Your task to perform on an android device: Clear all items from cart on target.com. Add usb-c to usb-b to the cart on target.com Image 0: 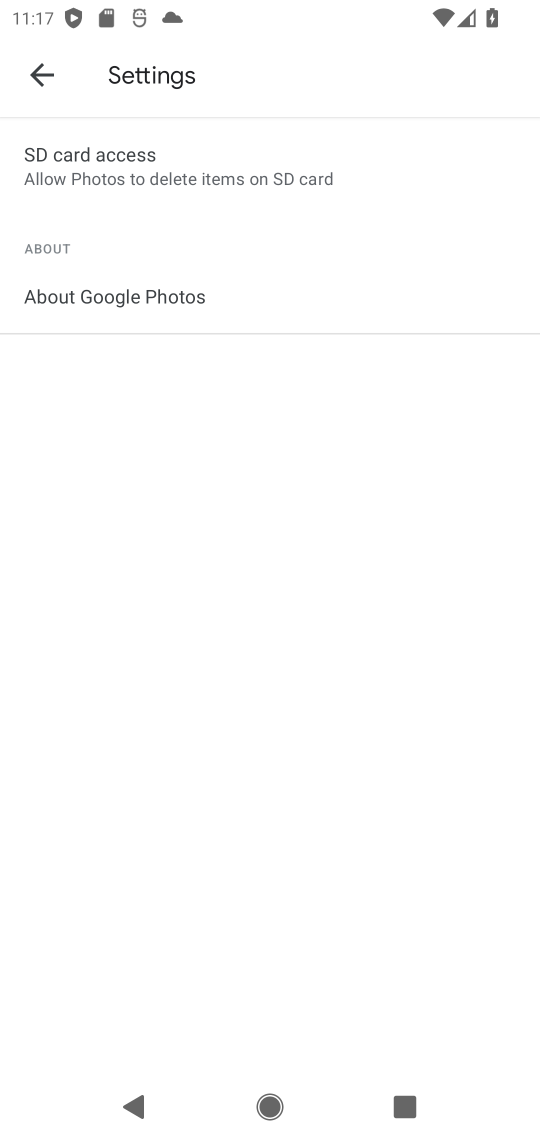
Step 0: press home button
Your task to perform on an android device: Clear all items from cart on target.com. Add usb-c to usb-b to the cart on target.com Image 1: 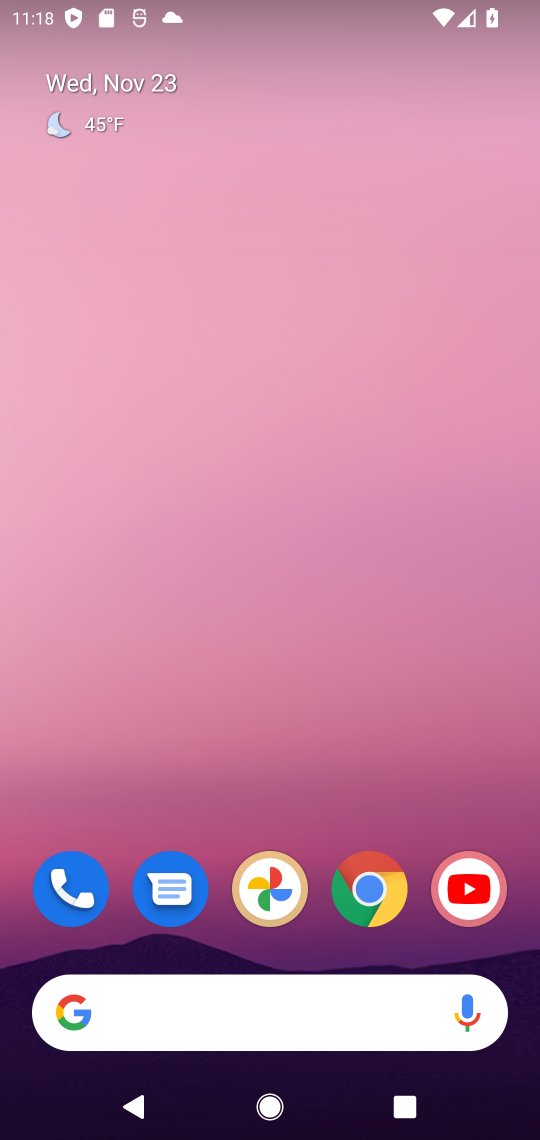
Step 1: click (377, 890)
Your task to perform on an android device: Clear all items from cart on target.com. Add usb-c to usb-b to the cart on target.com Image 2: 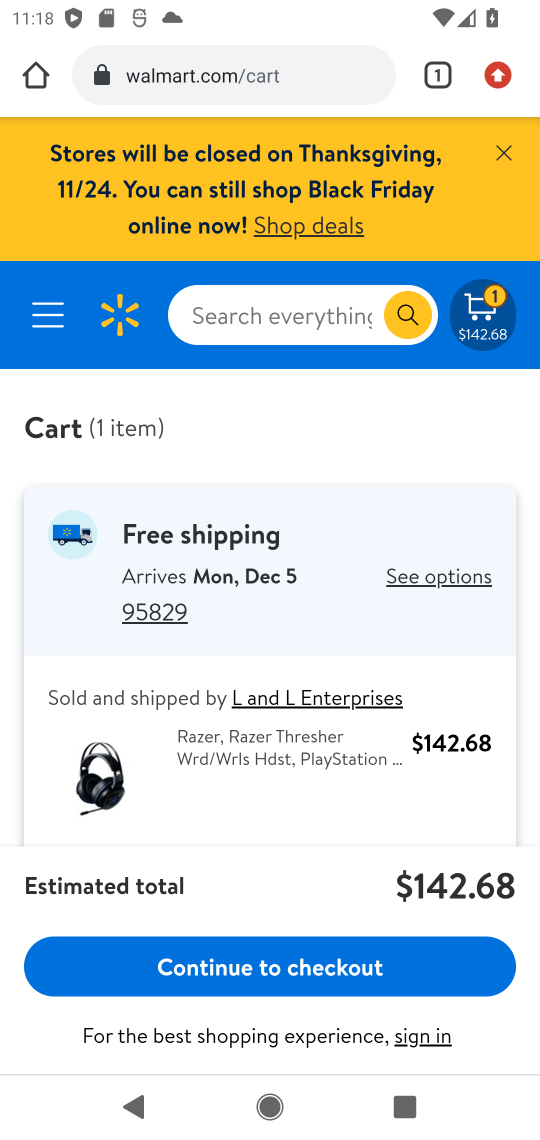
Step 2: click (225, 84)
Your task to perform on an android device: Clear all items from cart on target.com. Add usb-c to usb-b to the cart on target.com Image 3: 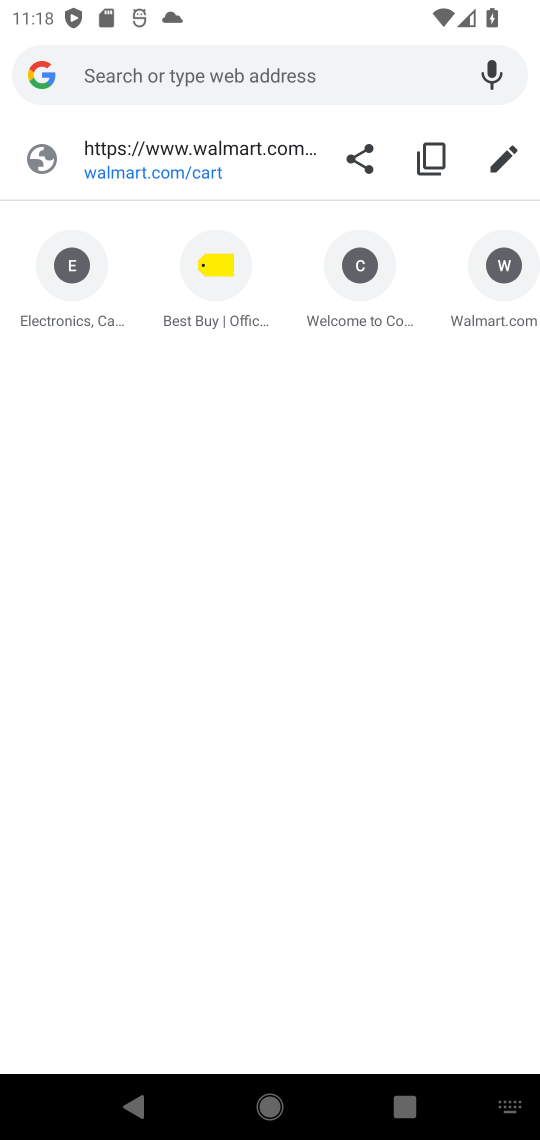
Step 3: type "target.com"
Your task to perform on an android device: Clear all items from cart on target.com. Add usb-c to usb-b to the cart on target.com Image 4: 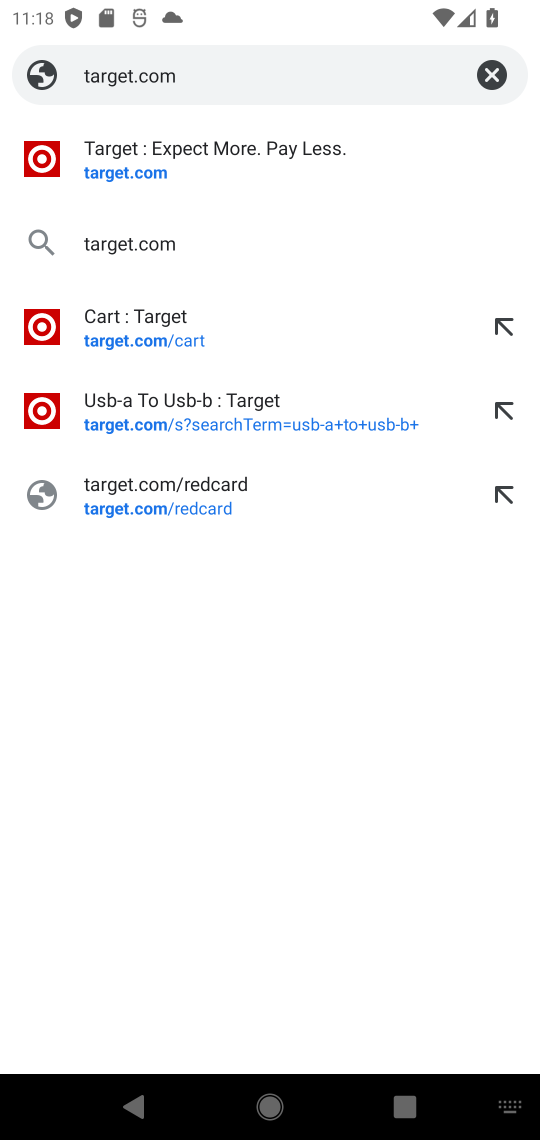
Step 4: click (110, 163)
Your task to perform on an android device: Clear all items from cart on target.com. Add usb-c to usb-b to the cart on target.com Image 5: 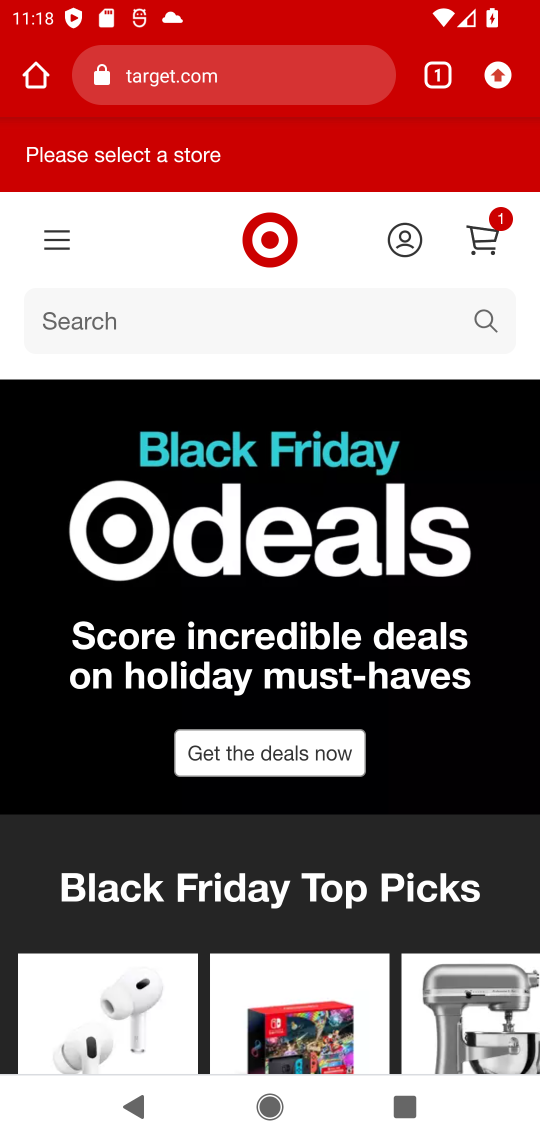
Step 5: click (490, 242)
Your task to perform on an android device: Clear all items from cart on target.com. Add usb-c to usb-b to the cart on target.com Image 6: 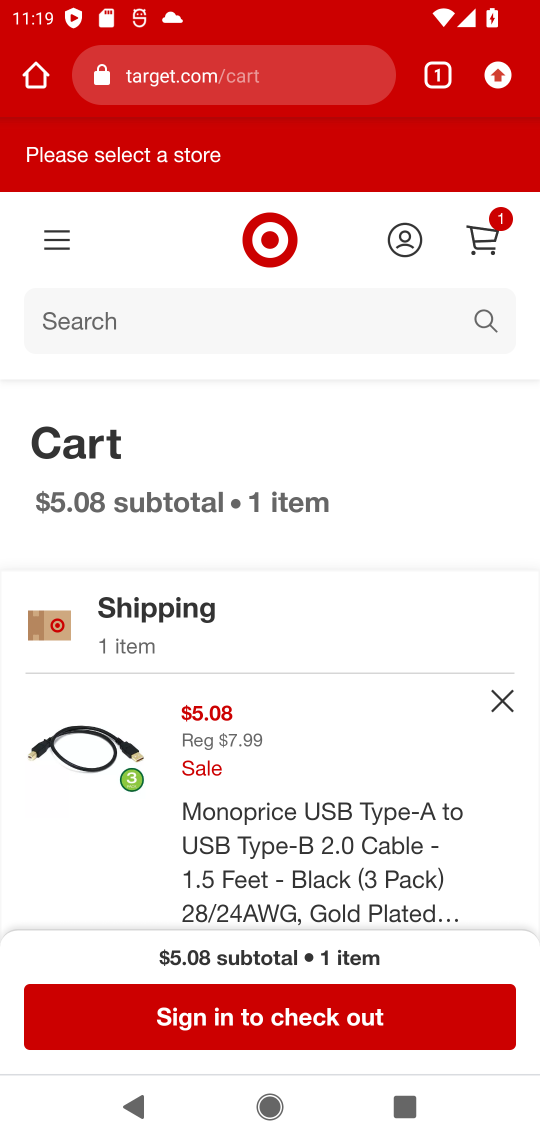
Step 6: click (498, 705)
Your task to perform on an android device: Clear all items from cart on target.com. Add usb-c to usb-b to the cart on target.com Image 7: 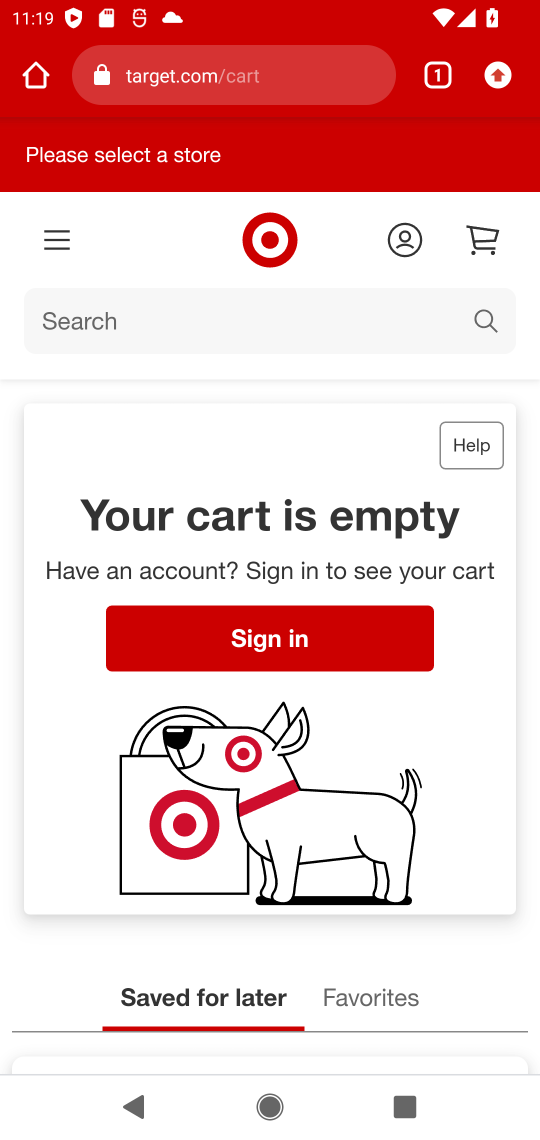
Step 7: click (489, 322)
Your task to perform on an android device: Clear all items from cart on target.com. Add usb-c to usb-b to the cart on target.com Image 8: 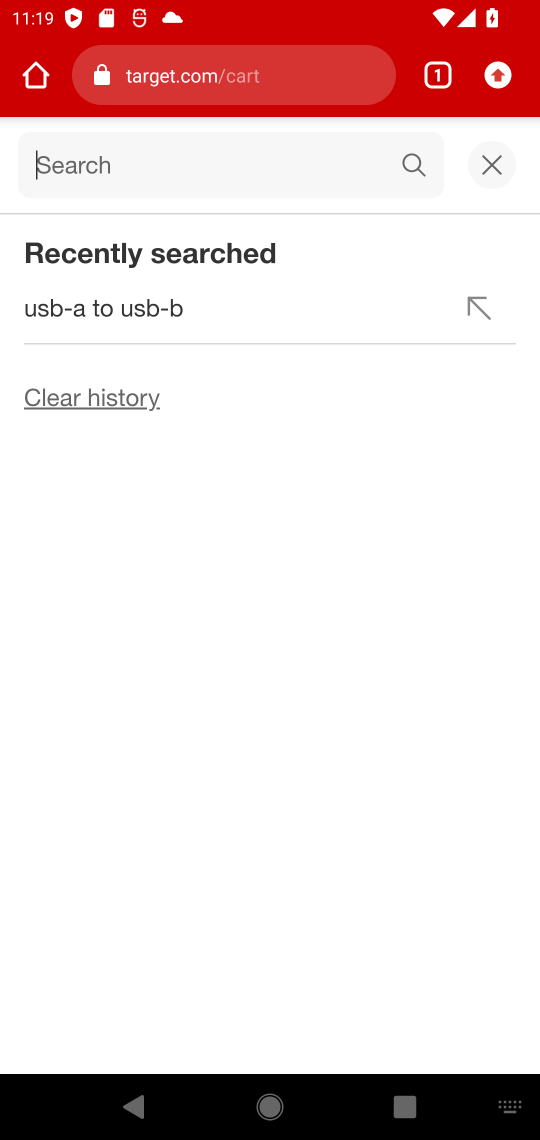
Step 8: type "usb-c to usb-b"
Your task to perform on an android device: Clear all items from cart on target.com. Add usb-c to usb-b to the cart on target.com Image 9: 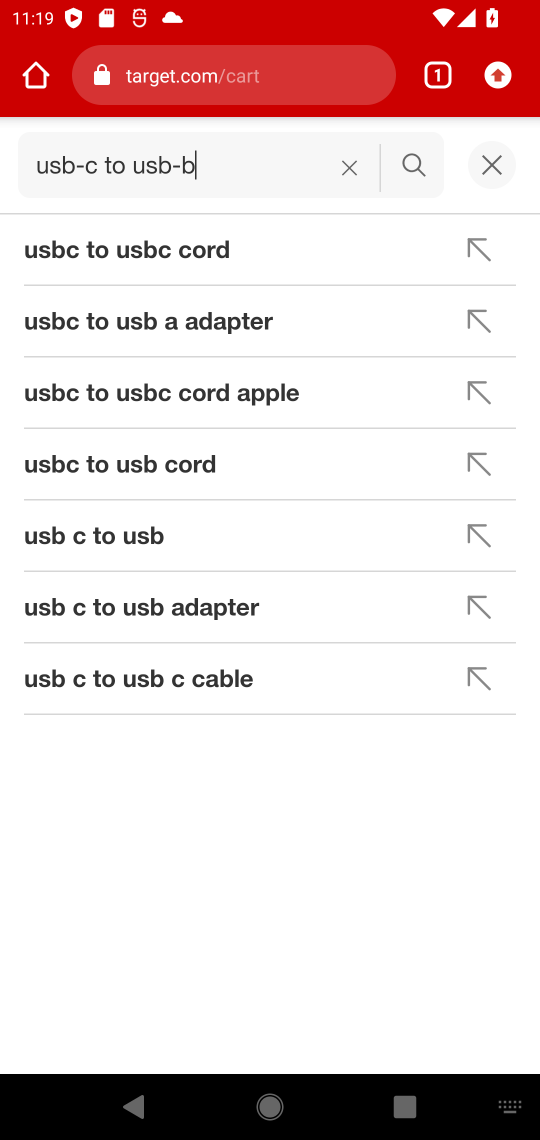
Step 9: click (419, 166)
Your task to perform on an android device: Clear all items from cart on target.com. Add usb-c to usb-b to the cart on target.com Image 10: 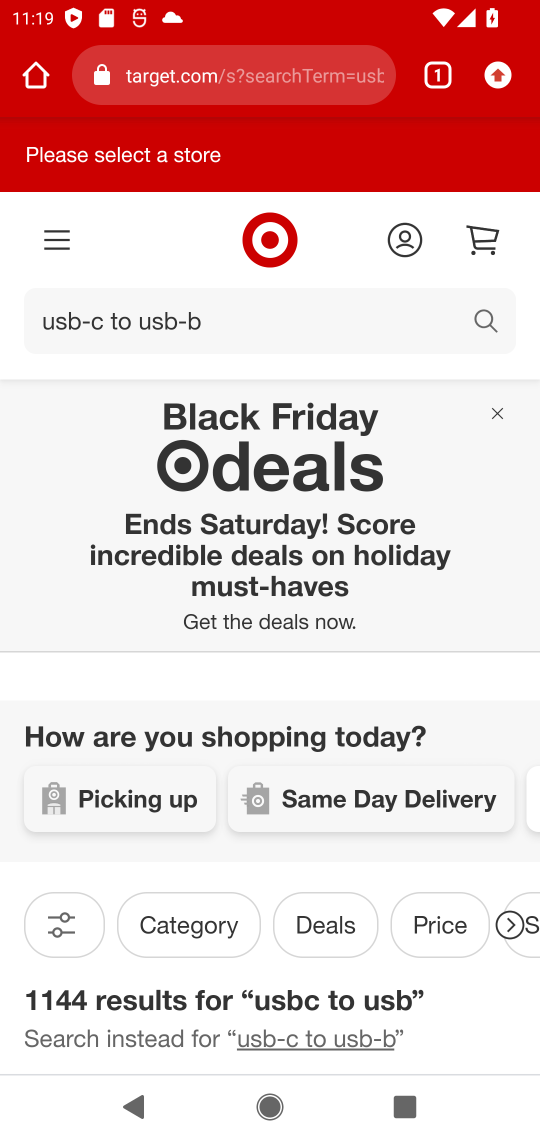
Step 10: drag from (283, 654) to (306, 249)
Your task to perform on an android device: Clear all items from cart on target.com. Add usb-c to usb-b to the cart on target.com Image 11: 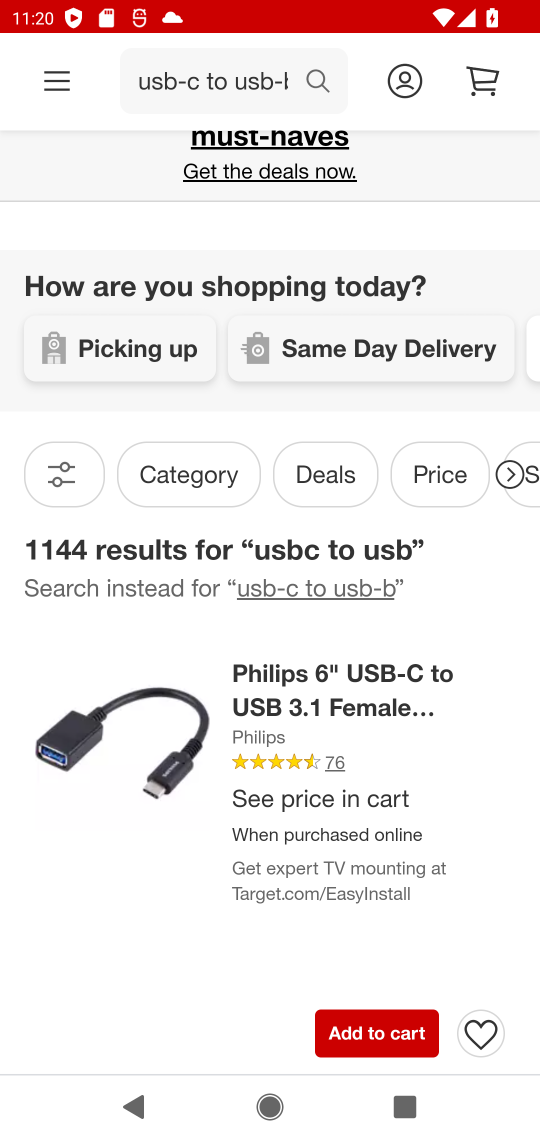
Step 11: click (209, 656)
Your task to perform on an android device: Clear all items from cart on target.com. Add usb-c to usb-b to the cart on target.com Image 12: 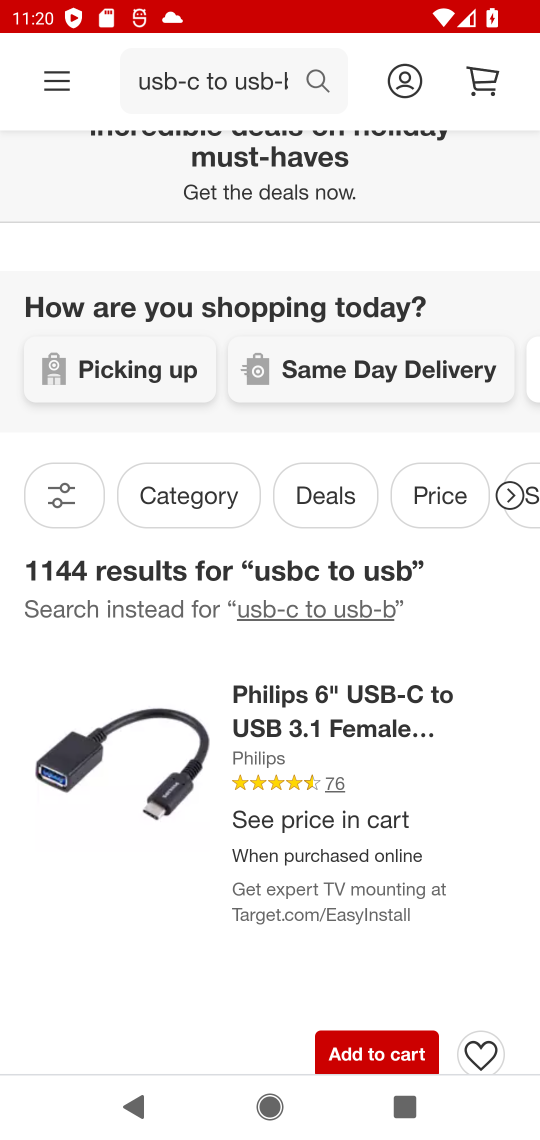
Step 12: drag from (204, 731) to (200, 308)
Your task to perform on an android device: Clear all items from cart on target.com. Add usb-c to usb-b to the cart on target.com Image 13: 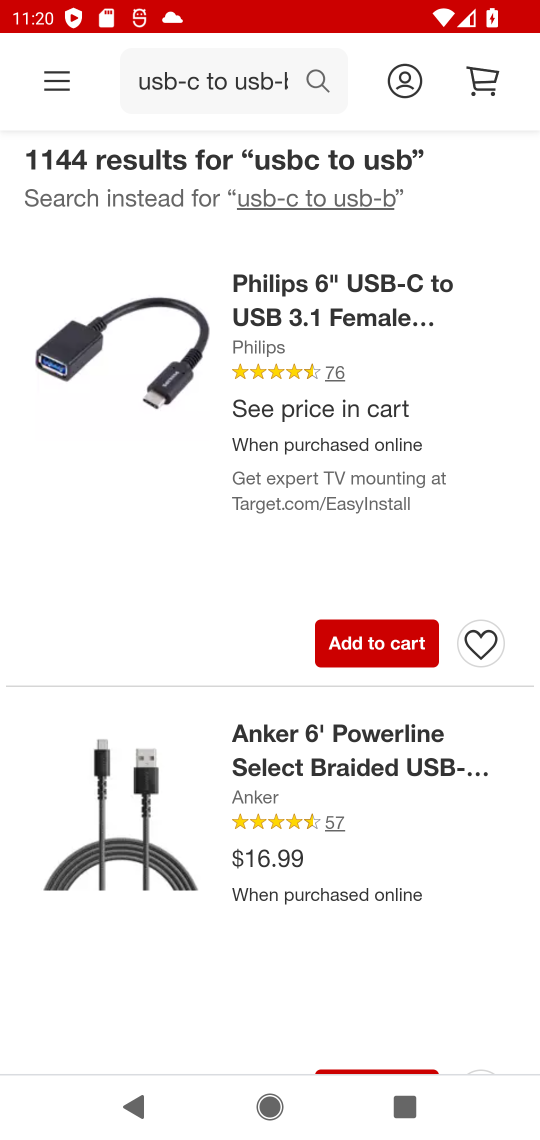
Step 13: click (122, 857)
Your task to perform on an android device: Clear all items from cart on target.com. Add usb-c to usb-b to the cart on target.com Image 14: 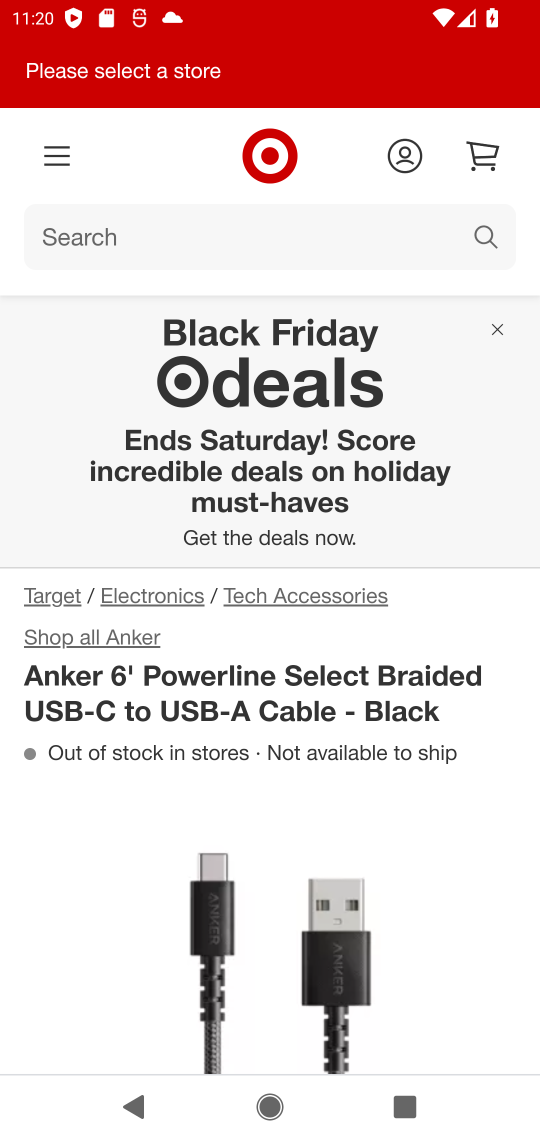
Step 14: task complete